Your task to perform on an android device: Install the eBay app Image 0: 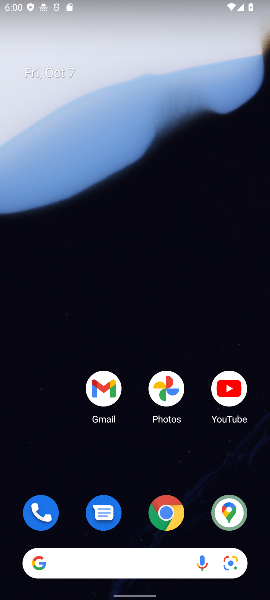
Step 0: drag from (134, 528) to (122, 234)
Your task to perform on an android device: Install the eBay app Image 1: 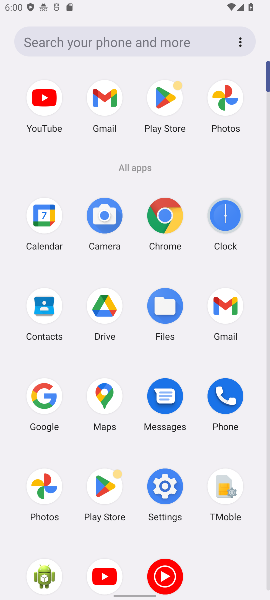
Step 1: click (161, 96)
Your task to perform on an android device: Install the eBay app Image 2: 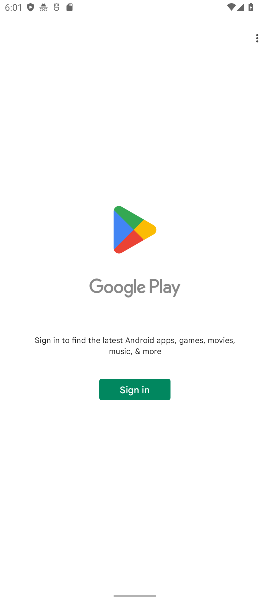
Step 2: click (126, 394)
Your task to perform on an android device: Install the eBay app Image 3: 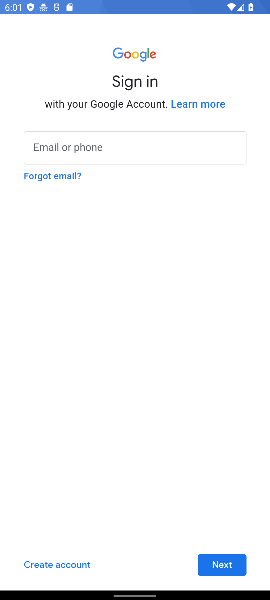
Step 3: task complete